Your task to perform on an android device: What's the weather going to be this weekend? Image 0: 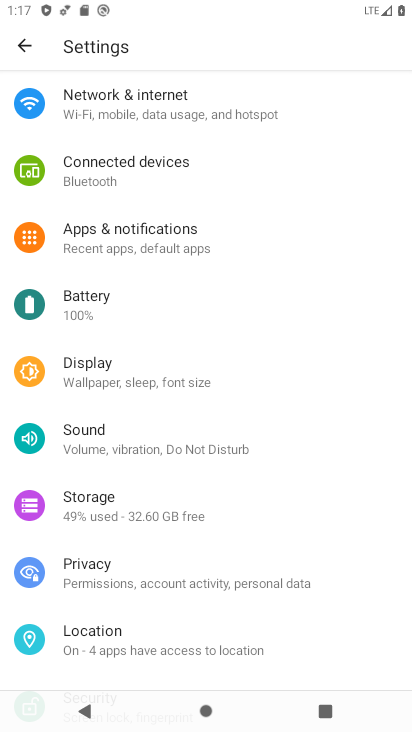
Step 0: press home button
Your task to perform on an android device: What's the weather going to be this weekend? Image 1: 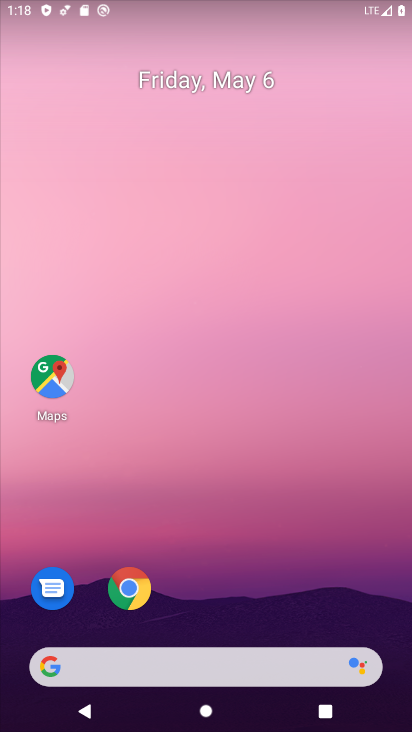
Step 1: drag from (358, 605) to (349, 96)
Your task to perform on an android device: What's the weather going to be this weekend? Image 2: 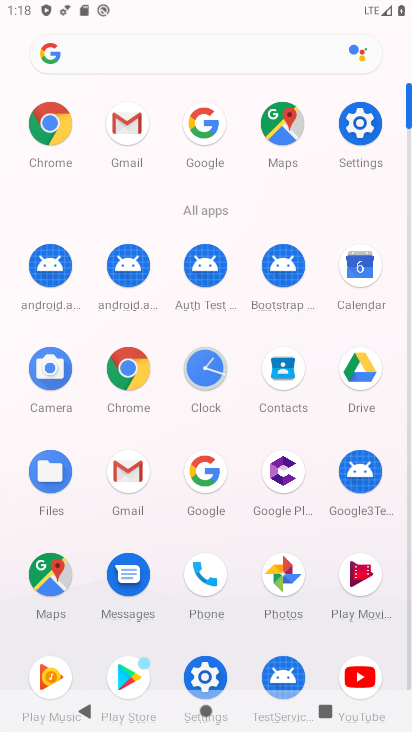
Step 2: click (128, 372)
Your task to perform on an android device: What's the weather going to be this weekend? Image 3: 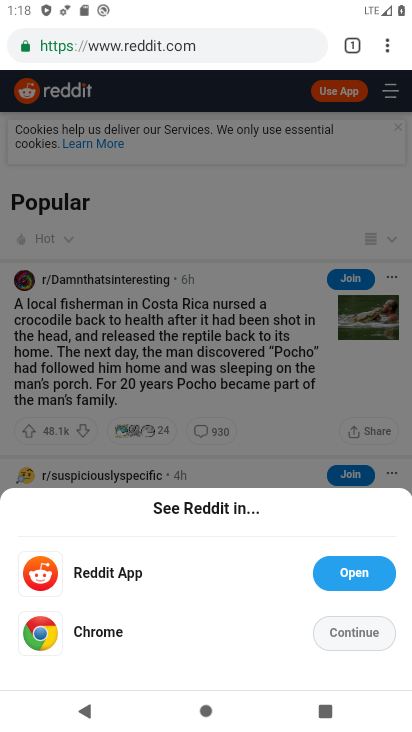
Step 3: click (148, 43)
Your task to perform on an android device: What's the weather going to be this weekend? Image 4: 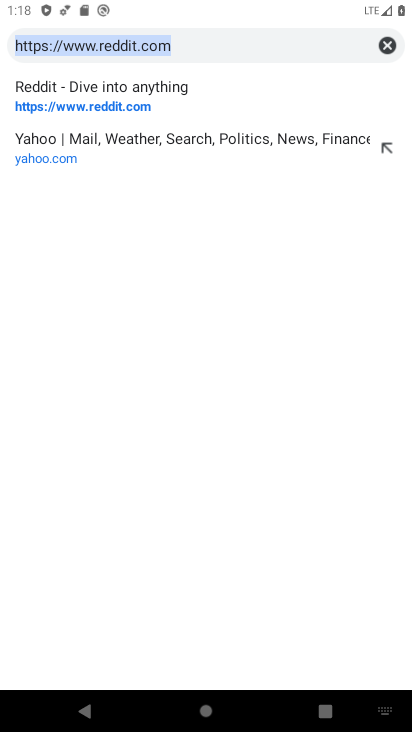
Step 4: click (384, 49)
Your task to perform on an android device: What's the weather going to be this weekend? Image 5: 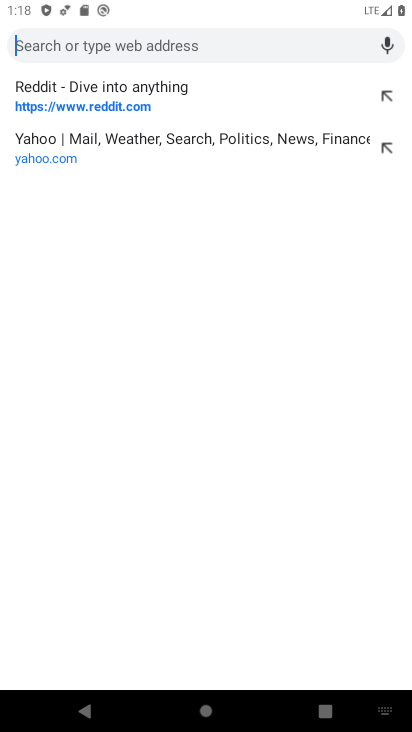
Step 5: click (151, 43)
Your task to perform on an android device: What's the weather going to be this weekend? Image 6: 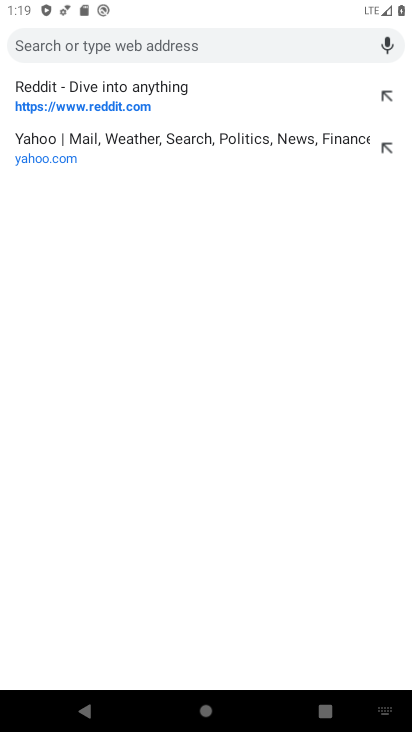
Step 6: type "what's the weather going to be this weekend"
Your task to perform on an android device: What's the weather going to be this weekend? Image 7: 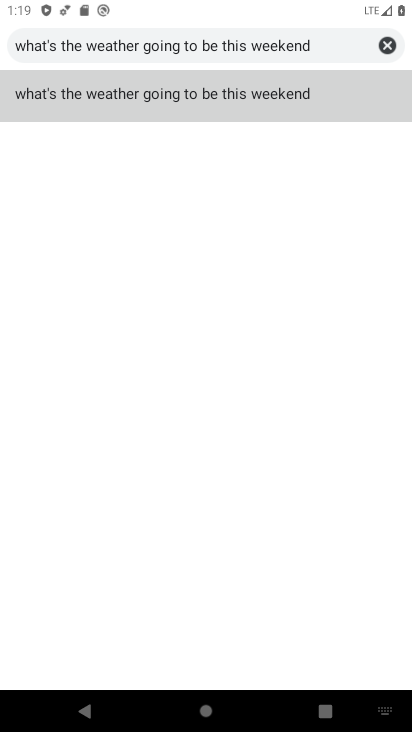
Step 7: click (173, 102)
Your task to perform on an android device: What's the weather going to be this weekend? Image 8: 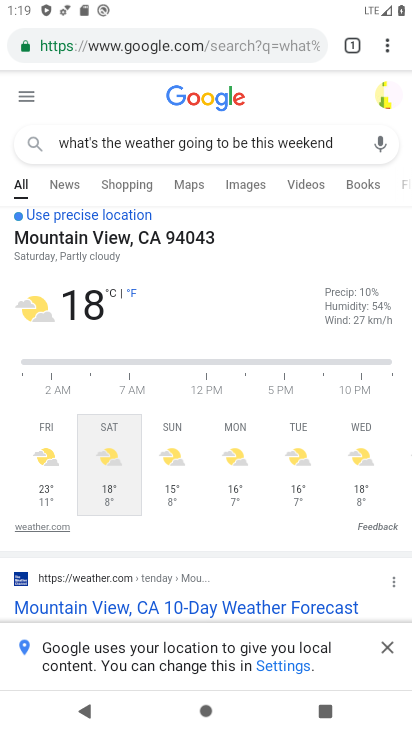
Step 8: task complete